Your task to perform on an android device: turn on bluetooth scan Image 0: 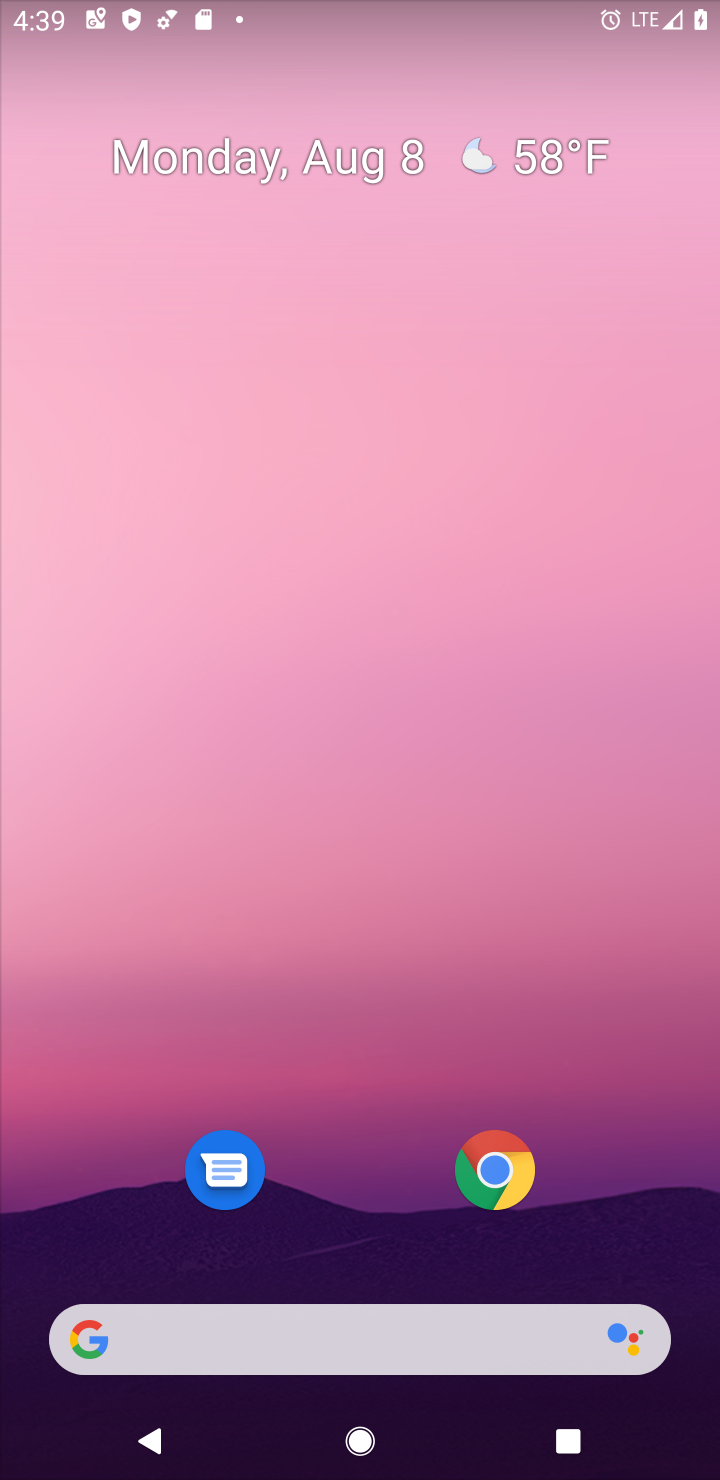
Step 0: drag from (347, 1036) to (252, 130)
Your task to perform on an android device: turn on bluetooth scan Image 1: 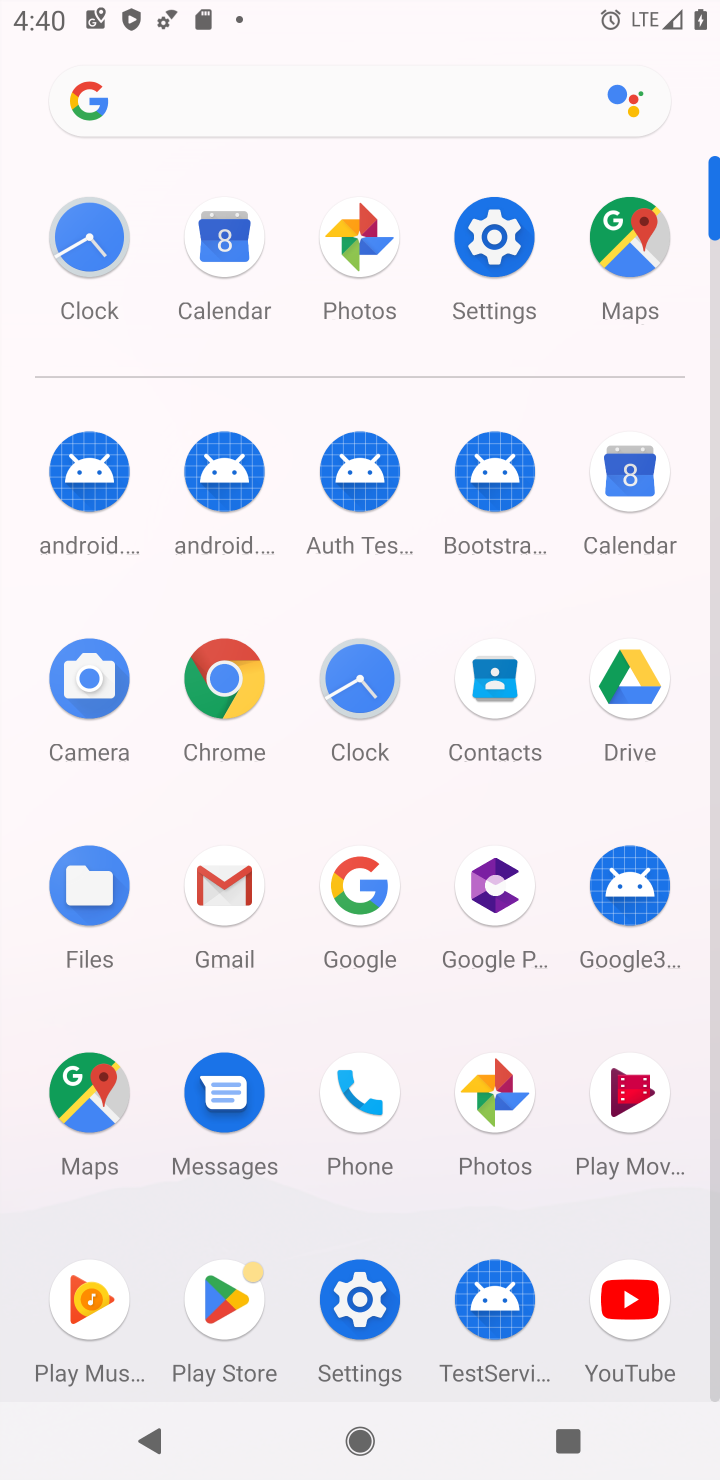
Step 1: click (458, 250)
Your task to perform on an android device: turn on bluetooth scan Image 2: 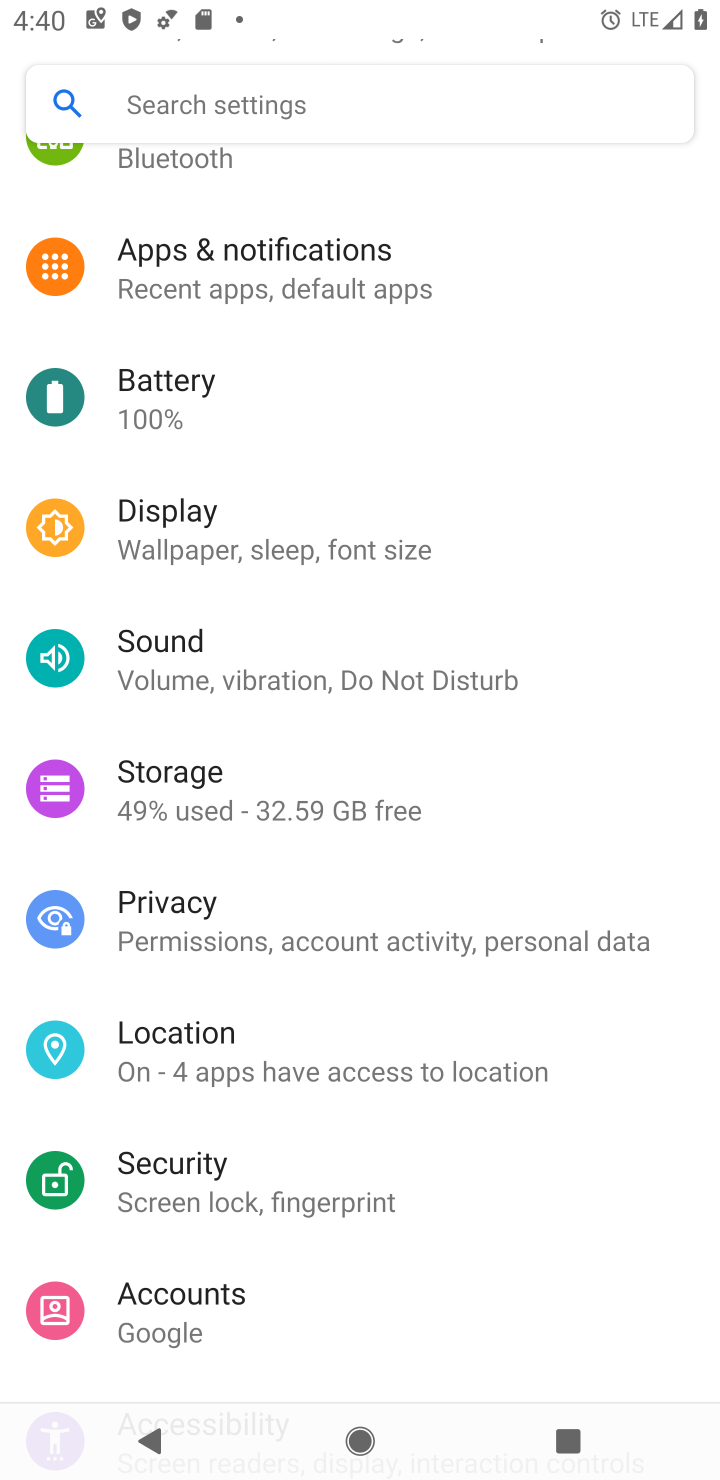
Step 2: drag from (305, 511) to (305, 1100)
Your task to perform on an android device: turn on bluetooth scan Image 3: 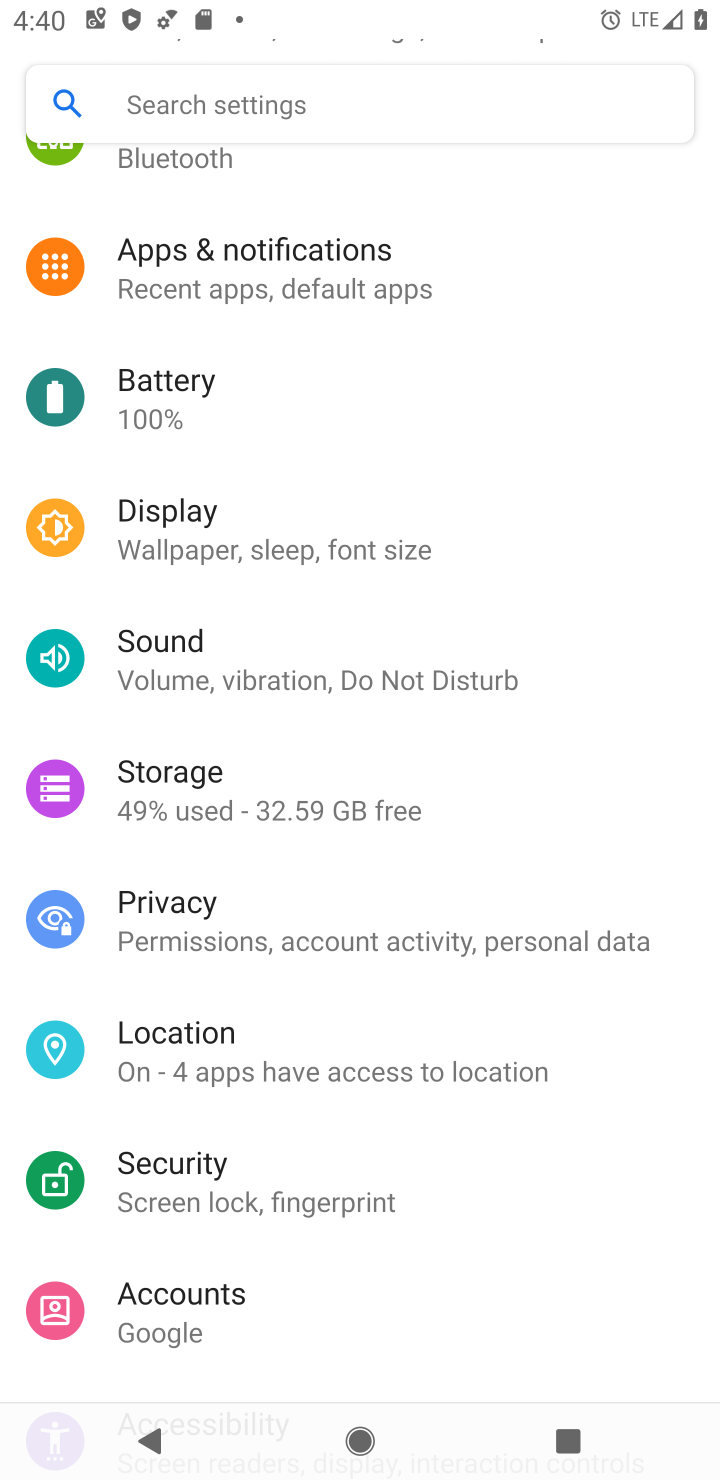
Step 3: click (197, 1053)
Your task to perform on an android device: turn on bluetooth scan Image 4: 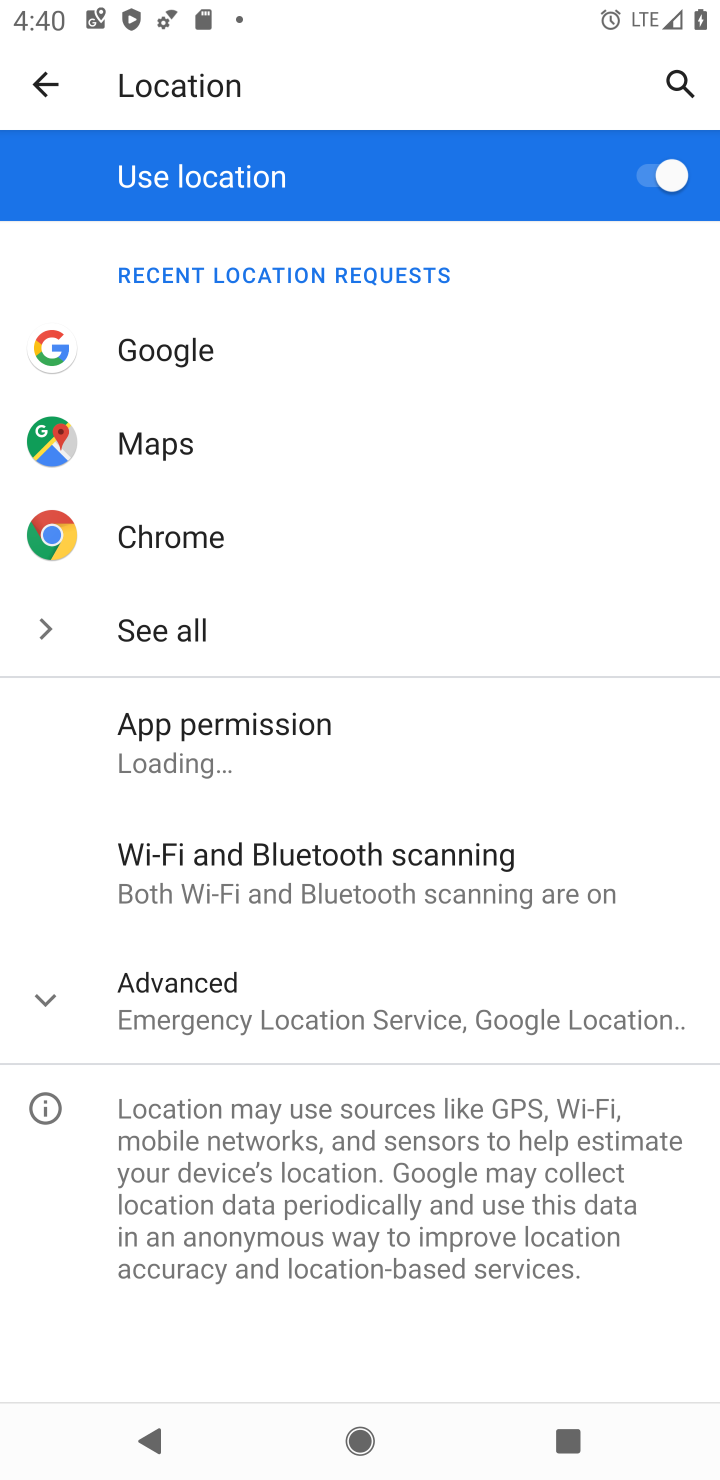
Step 4: click (321, 891)
Your task to perform on an android device: turn on bluetooth scan Image 5: 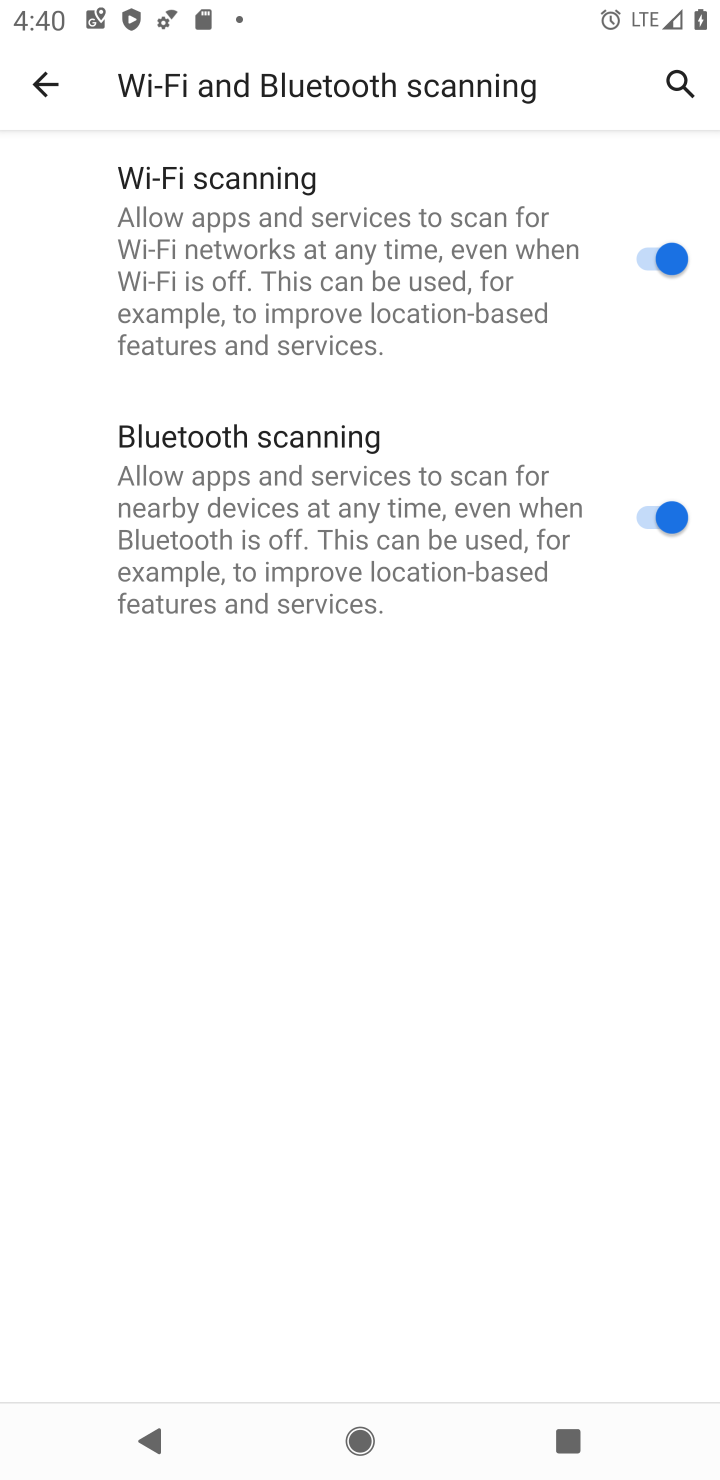
Step 5: task complete